Your task to perform on an android device: Open Yahoo.com Image 0: 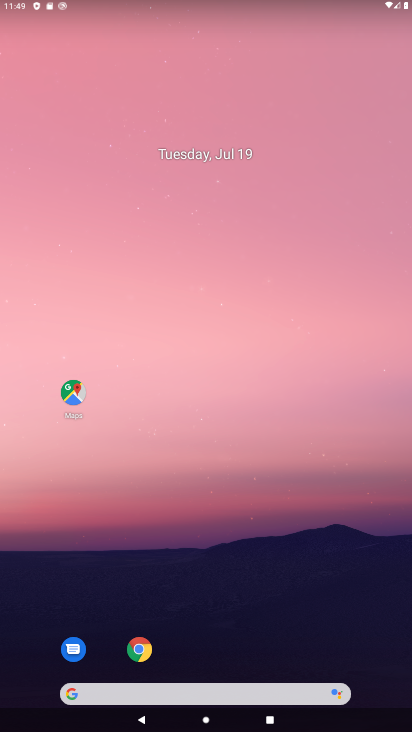
Step 0: click (138, 649)
Your task to perform on an android device: Open Yahoo.com Image 1: 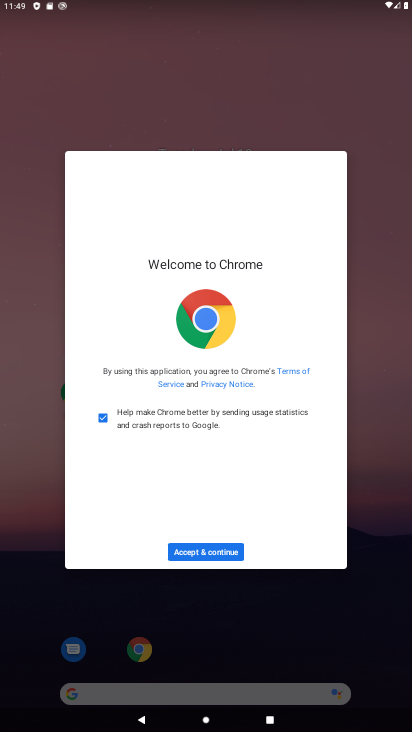
Step 1: click (195, 544)
Your task to perform on an android device: Open Yahoo.com Image 2: 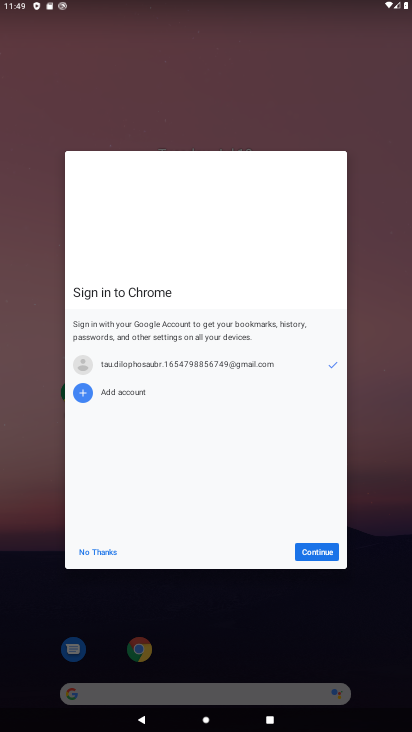
Step 2: click (319, 557)
Your task to perform on an android device: Open Yahoo.com Image 3: 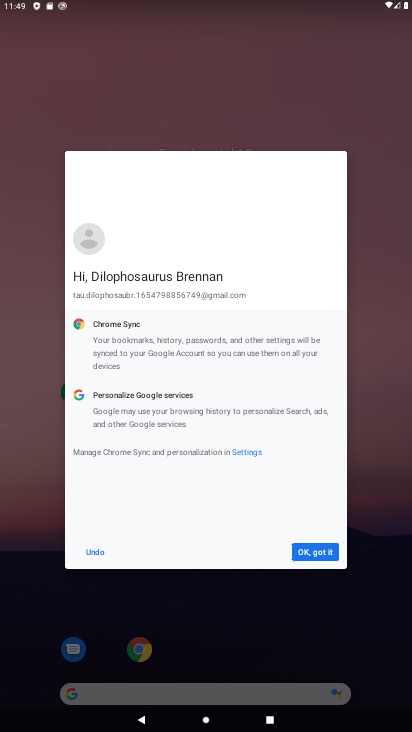
Step 3: click (319, 557)
Your task to perform on an android device: Open Yahoo.com Image 4: 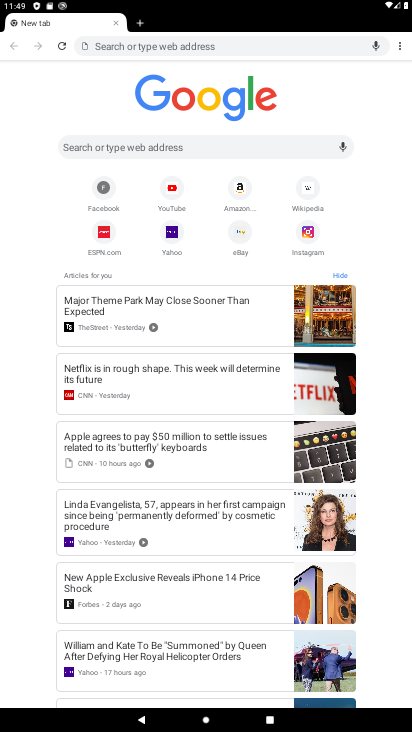
Step 4: click (171, 224)
Your task to perform on an android device: Open Yahoo.com Image 5: 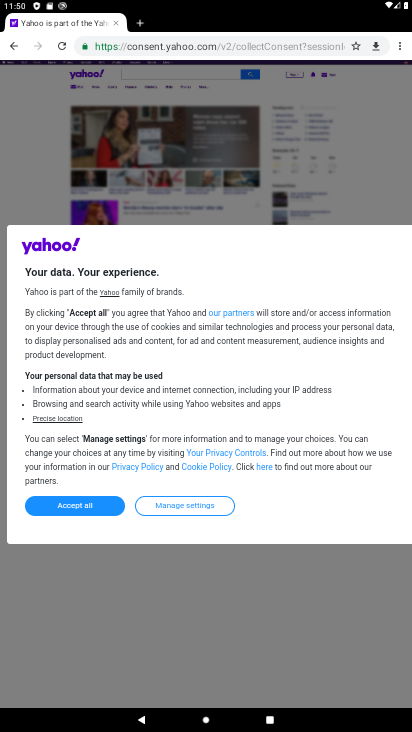
Step 5: task complete